Your task to perform on an android device: remove spam from my inbox in the gmail app Image 0: 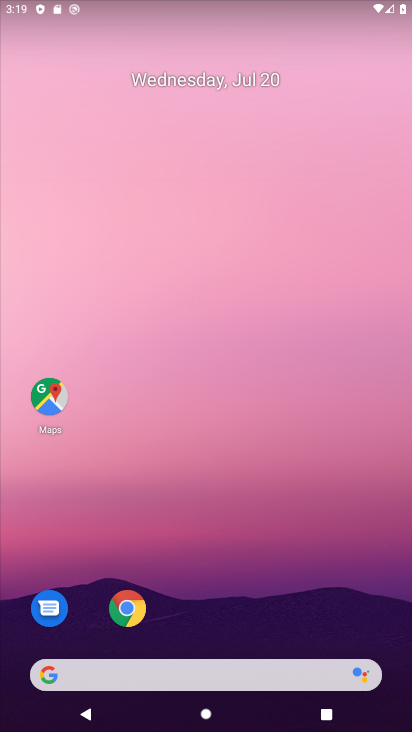
Step 0: drag from (249, 670) to (321, 199)
Your task to perform on an android device: remove spam from my inbox in the gmail app Image 1: 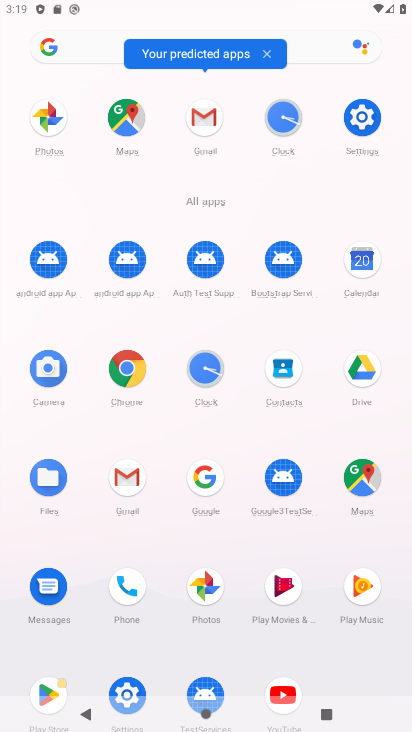
Step 1: click (115, 472)
Your task to perform on an android device: remove spam from my inbox in the gmail app Image 2: 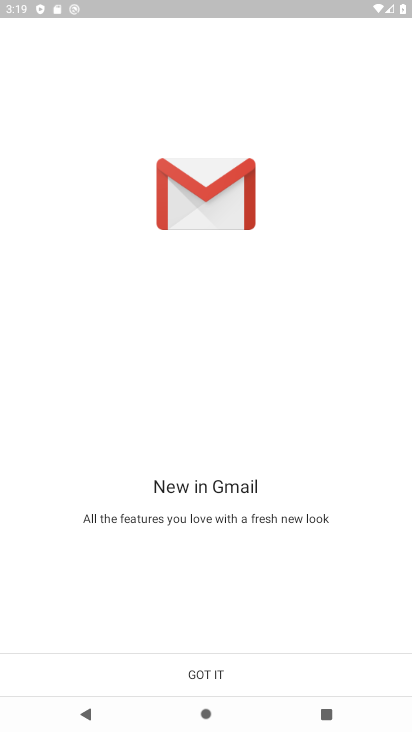
Step 2: click (212, 676)
Your task to perform on an android device: remove spam from my inbox in the gmail app Image 3: 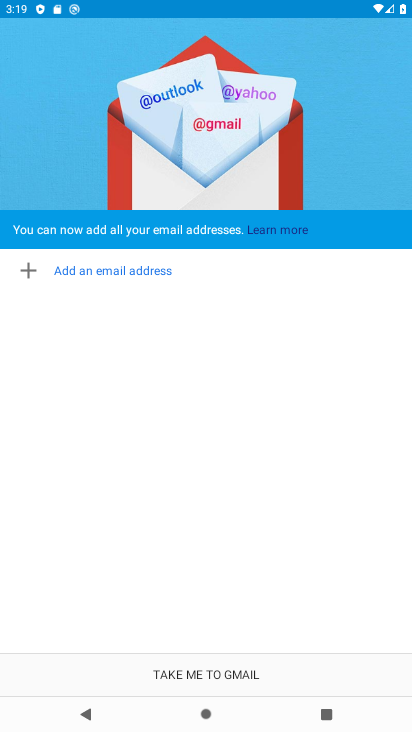
Step 3: click (226, 671)
Your task to perform on an android device: remove spam from my inbox in the gmail app Image 4: 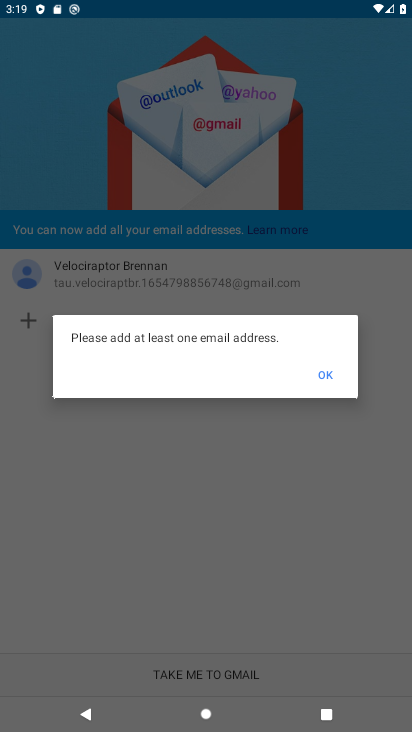
Step 4: task complete